Your task to perform on an android device: Open CNN.com Image 0: 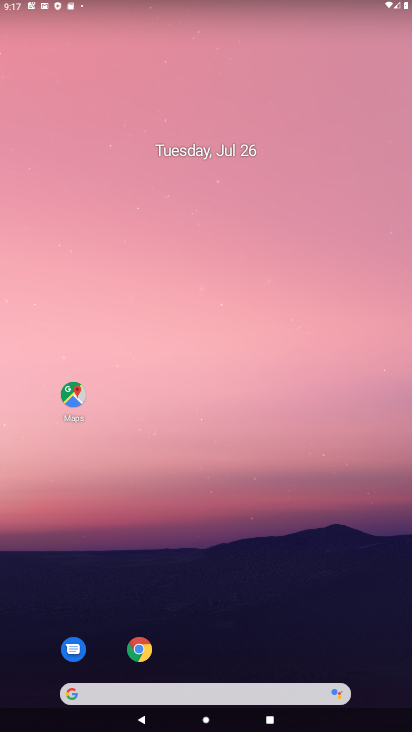
Step 0: click (389, 17)
Your task to perform on an android device: Open CNN.com Image 1: 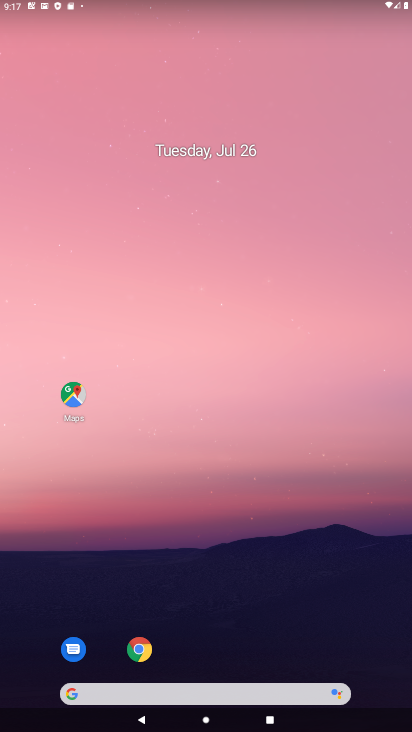
Step 1: drag from (177, 641) to (262, 89)
Your task to perform on an android device: Open CNN.com Image 2: 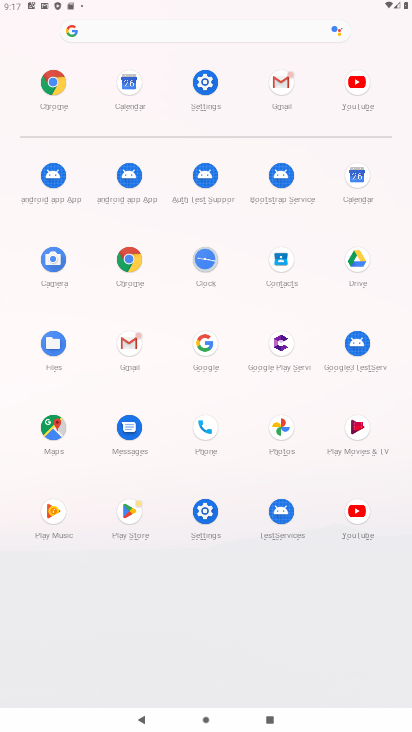
Step 2: click (124, 249)
Your task to perform on an android device: Open CNN.com Image 3: 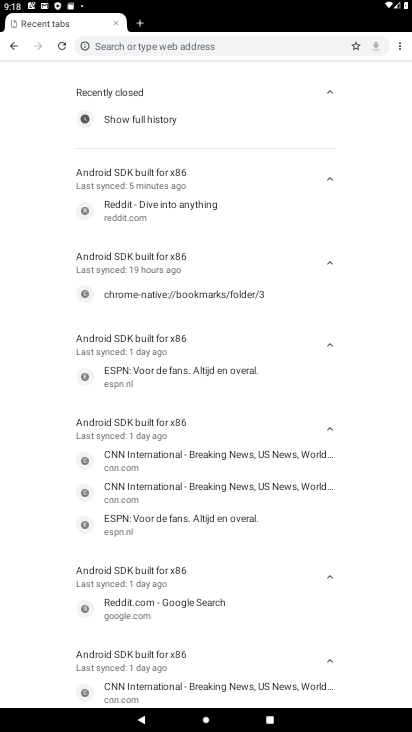
Step 3: click (218, 42)
Your task to perform on an android device: Open CNN.com Image 4: 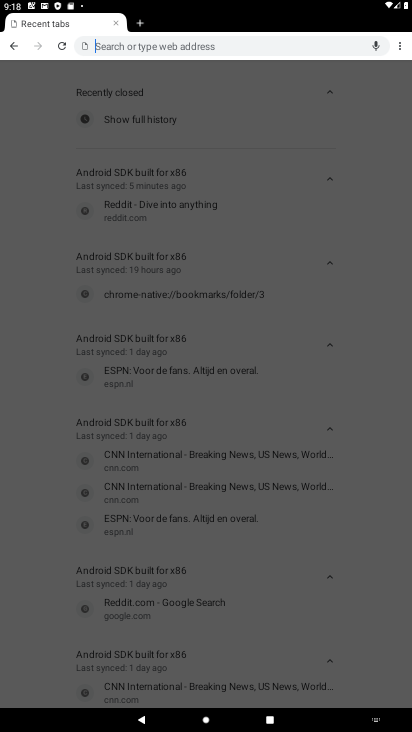
Step 4: type "cnn.com"
Your task to perform on an android device: Open CNN.com Image 5: 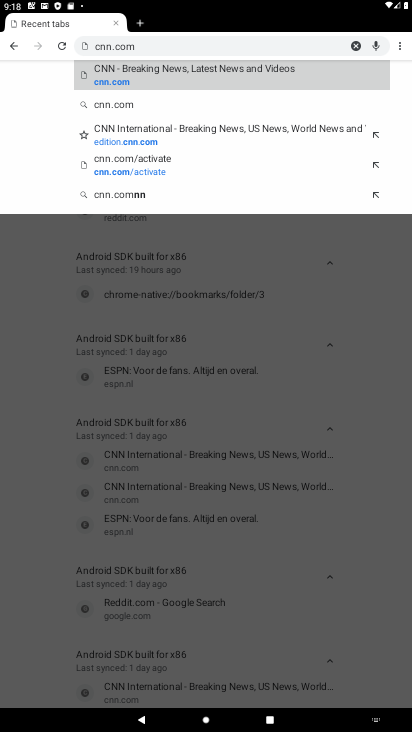
Step 5: click (104, 73)
Your task to perform on an android device: Open CNN.com Image 6: 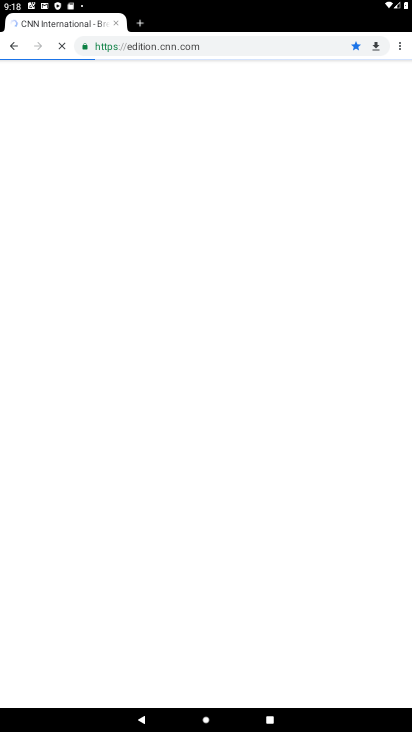
Step 6: task complete